Your task to perform on an android device: Check the weather Image 0: 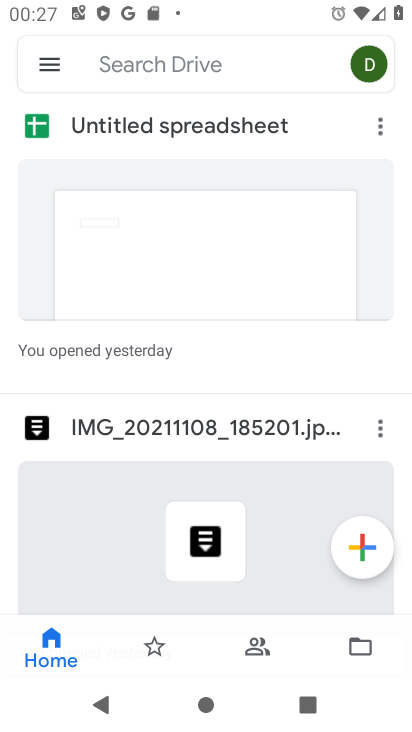
Step 0: press home button
Your task to perform on an android device: Check the weather Image 1: 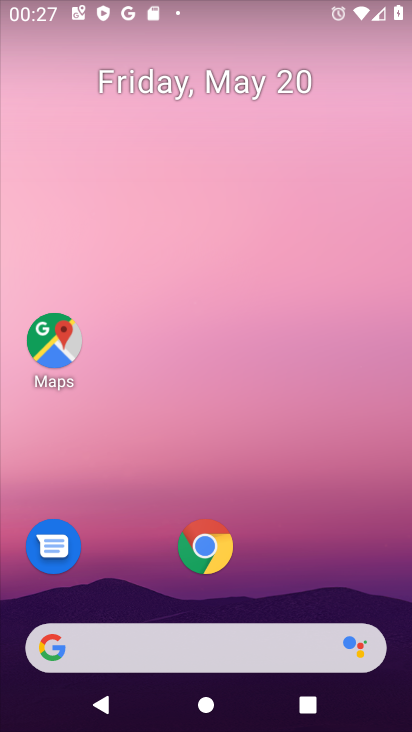
Step 1: click (208, 541)
Your task to perform on an android device: Check the weather Image 2: 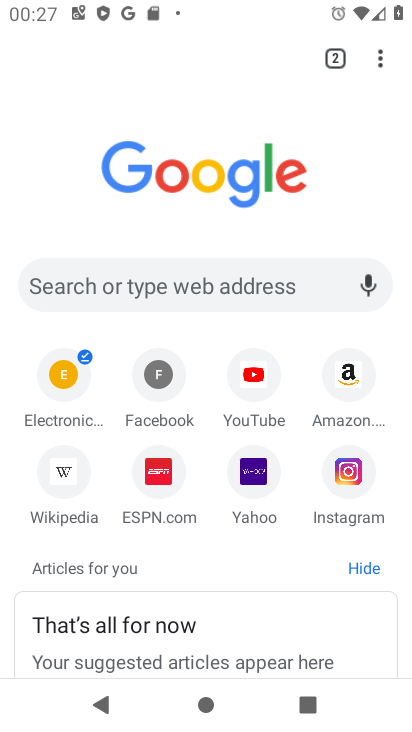
Step 2: click (240, 287)
Your task to perform on an android device: Check the weather Image 3: 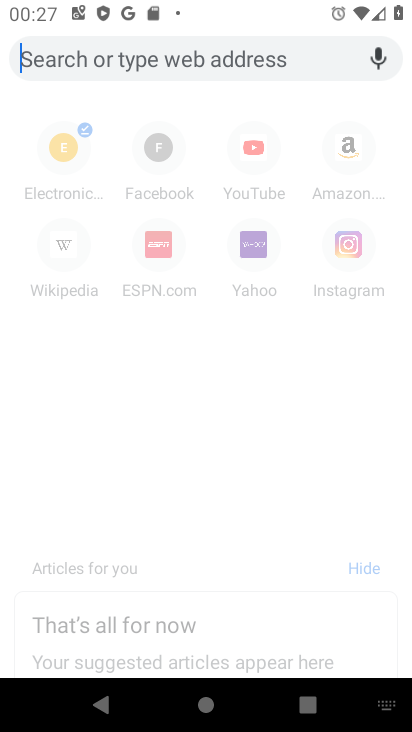
Step 3: type "weather"
Your task to perform on an android device: Check the weather Image 4: 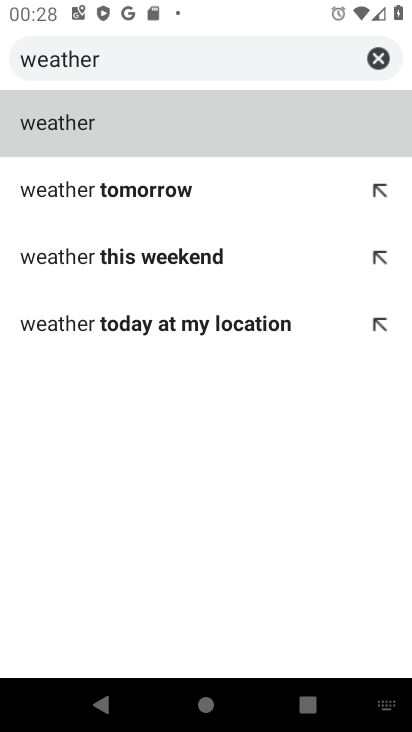
Step 4: click (65, 123)
Your task to perform on an android device: Check the weather Image 5: 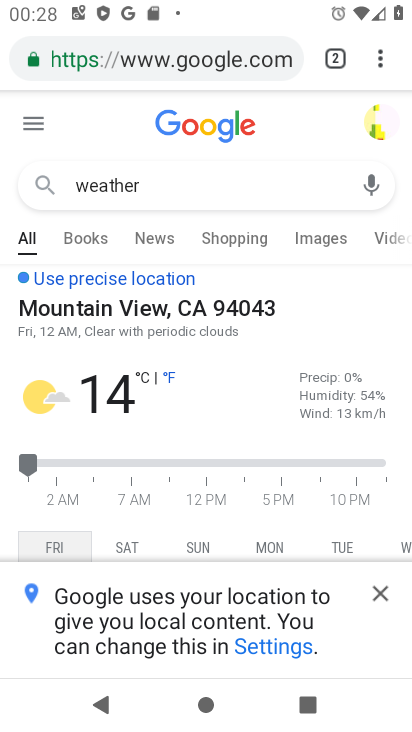
Step 5: task complete